Your task to perform on an android device: Go to CNN.com Image 0: 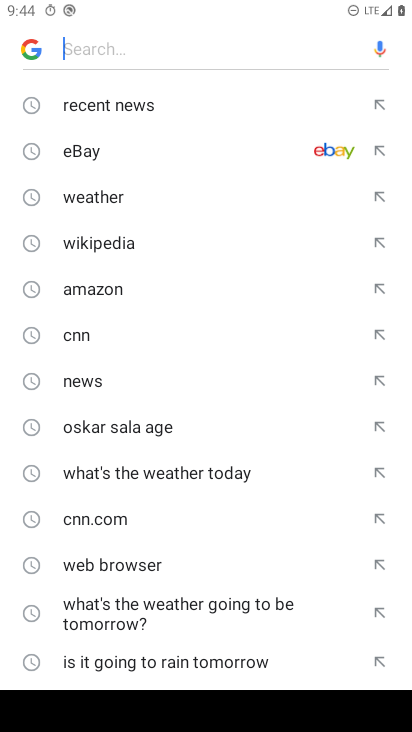
Step 0: press home button
Your task to perform on an android device: Go to CNN.com Image 1: 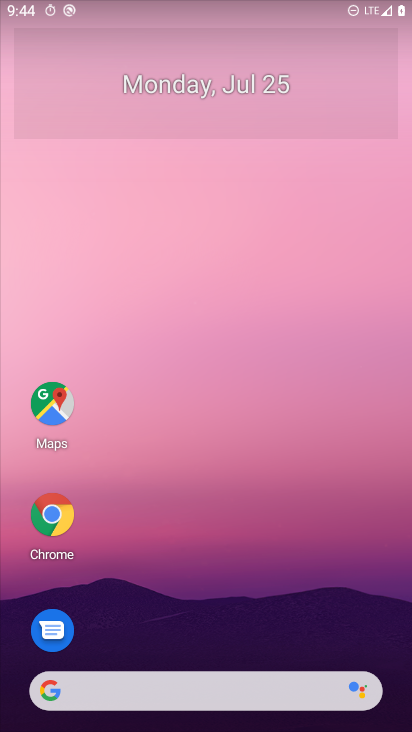
Step 1: click (100, 691)
Your task to perform on an android device: Go to CNN.com Image 2: 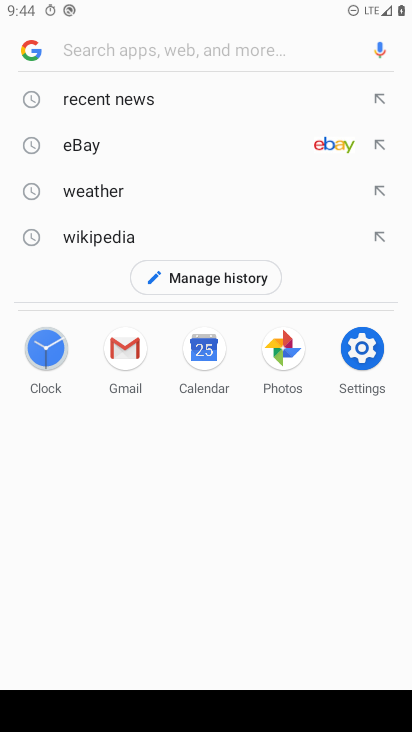
Step 2: type "CNN.com"
Your task to perform on an android device: Go to CNN.com Image 3: 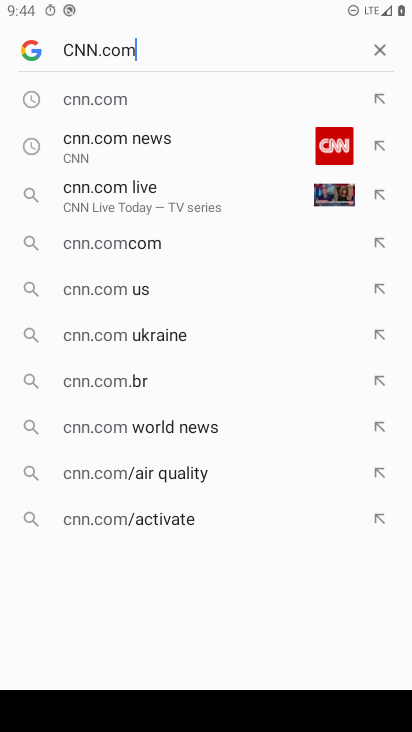
Step 3: type ""
Your task to perform on an android device: Go to CNN.com Image 4: 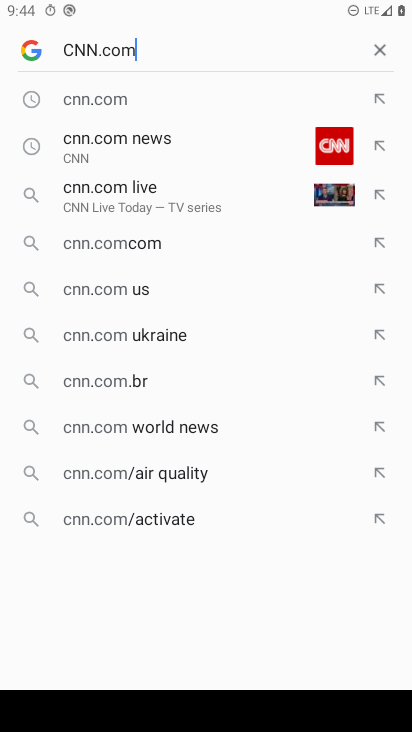
Step 4: click (99, 98)
Your task to perform on an android device: Go to CNN.com Image 5: 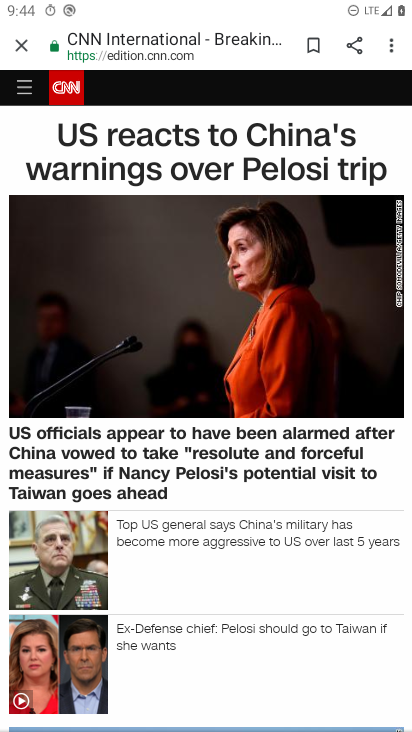
Step 5: task complete